Your task to perform on an android device: Open Google Maps and go to "Timeline" Image 0: 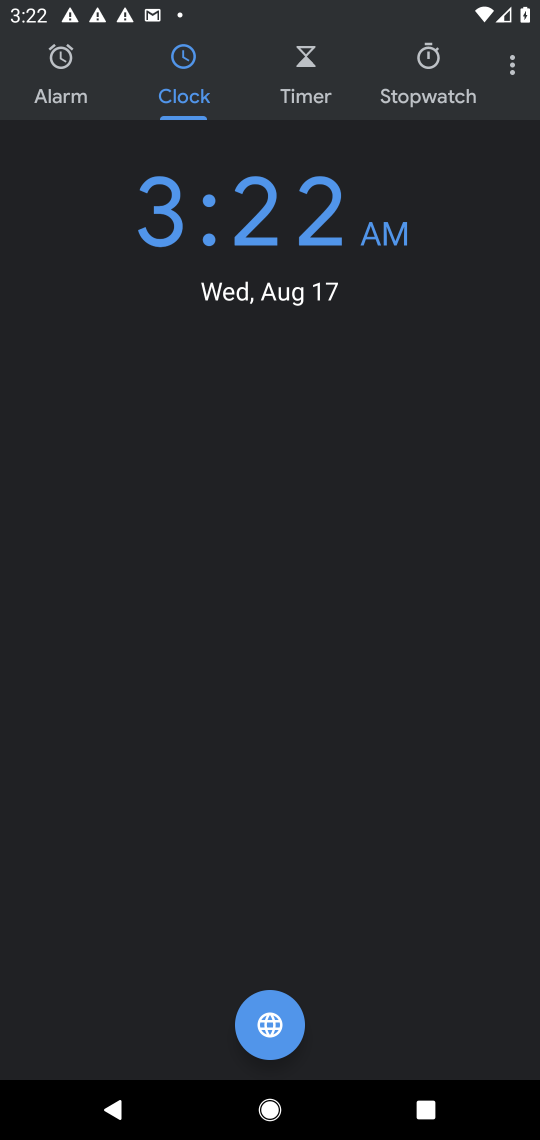
Step 0: press home button
Your task to perform on an android device: Open Google Maps and go to "Timeline" Image 1: 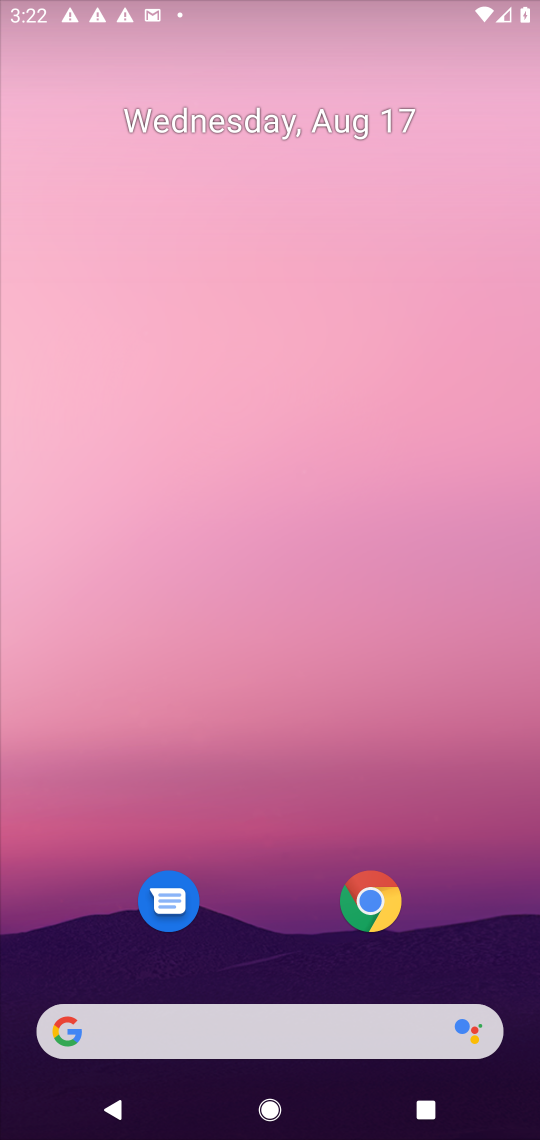
Step 1: drag from (282, 1040) to (354, 388)
Your task to perform on an android device: Open Google Maps and go to "Timeline" Image 2: 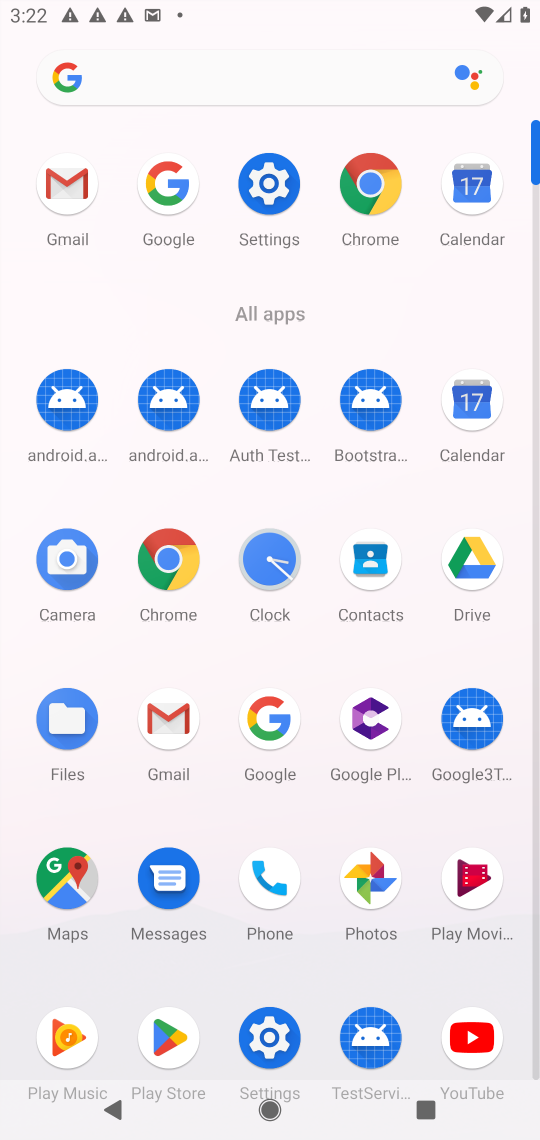
Step 2: click (59, 904)
Your task to perform on an android device: Open Google Maps and go to "Timeline" Image 3: 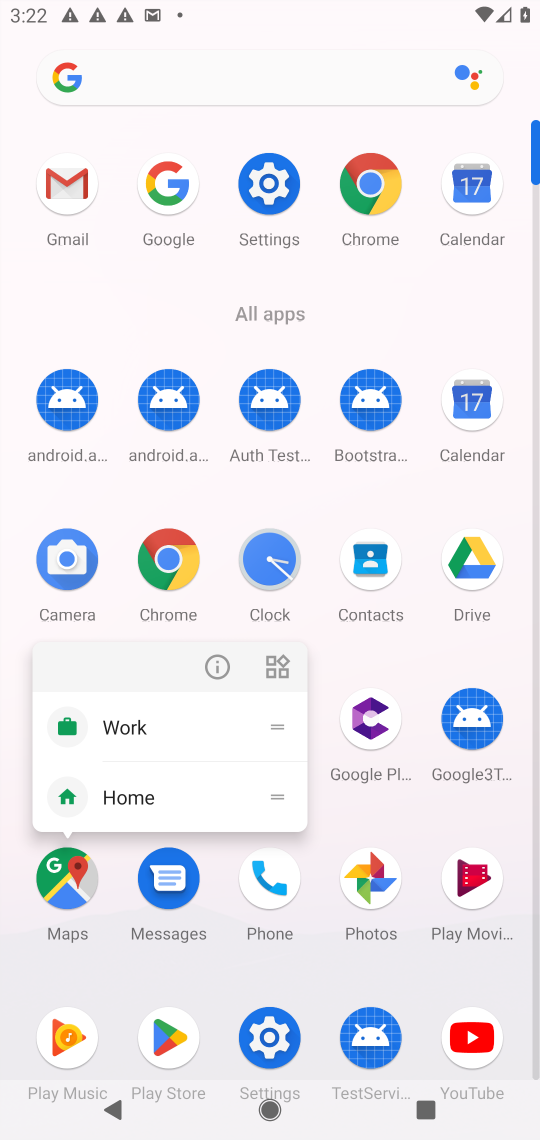
Step 3: click (60, 870)
Your task to perform on an android device: Open Google Maps and go to "Timeline" Image 4: 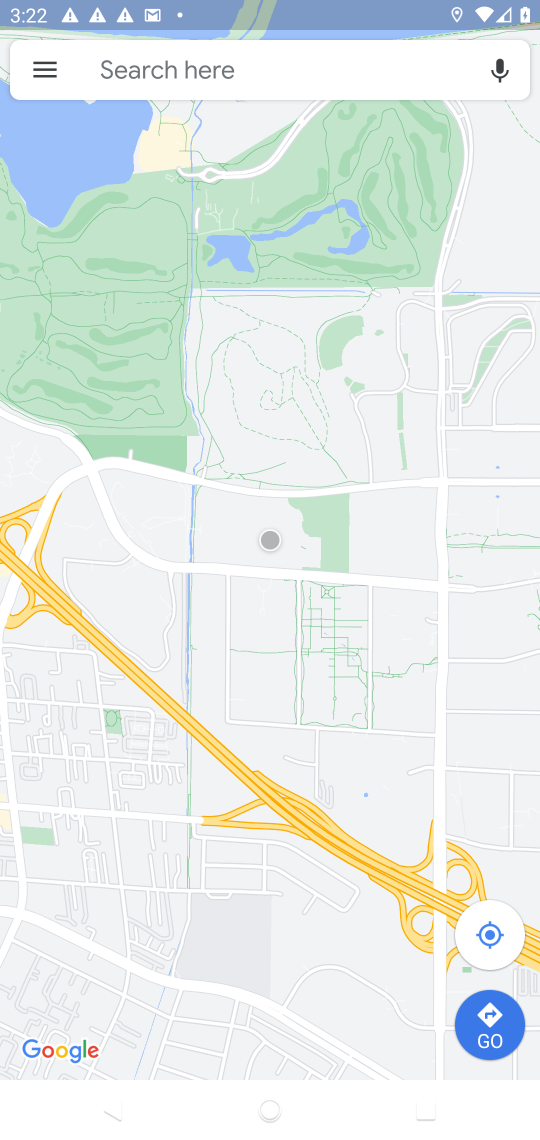
Step 4: click (43, 66)
Your task to perform on an android device: Open Google Maps and go to "Timeline" Image 5: 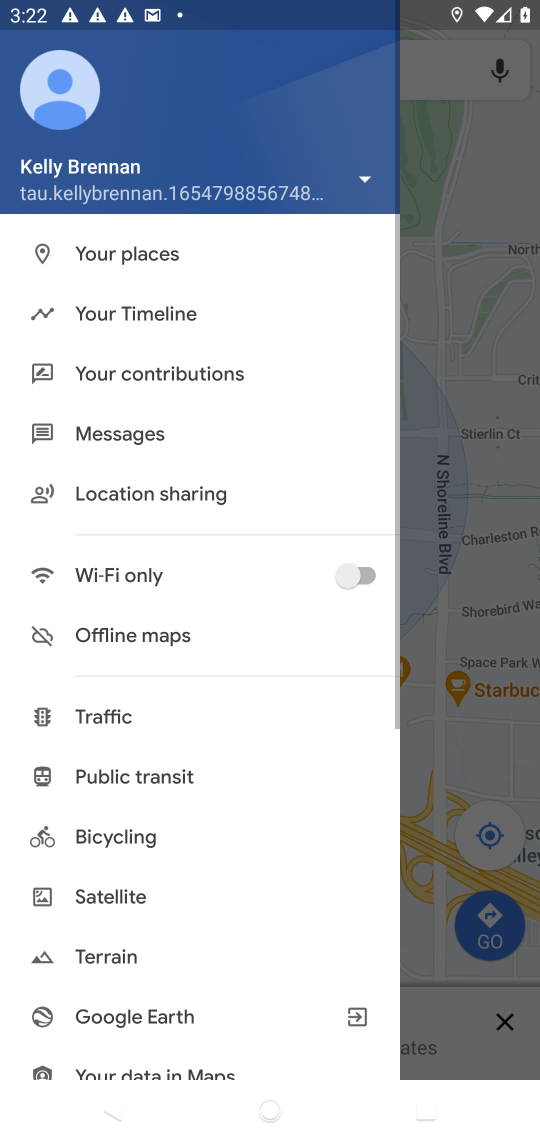
Step 5: click (125, 310)
Your task to perform on an android device: Open Google Maps and go to "Timeline" Image 6: 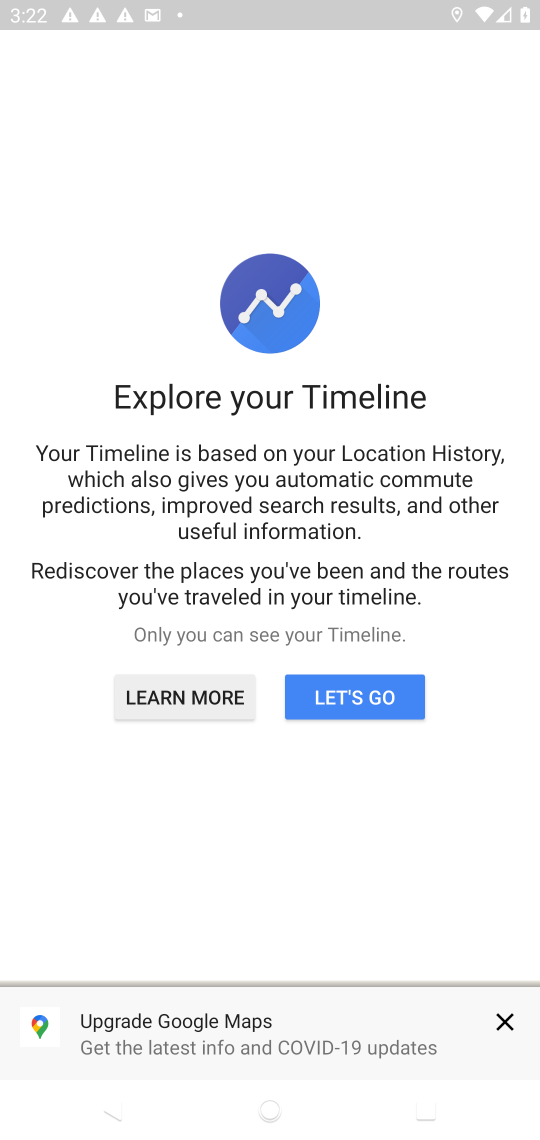
Step 6: click (341, 698)
Your task to perform on an android device: Open Google Maps and go to "Timeline" Image 7: 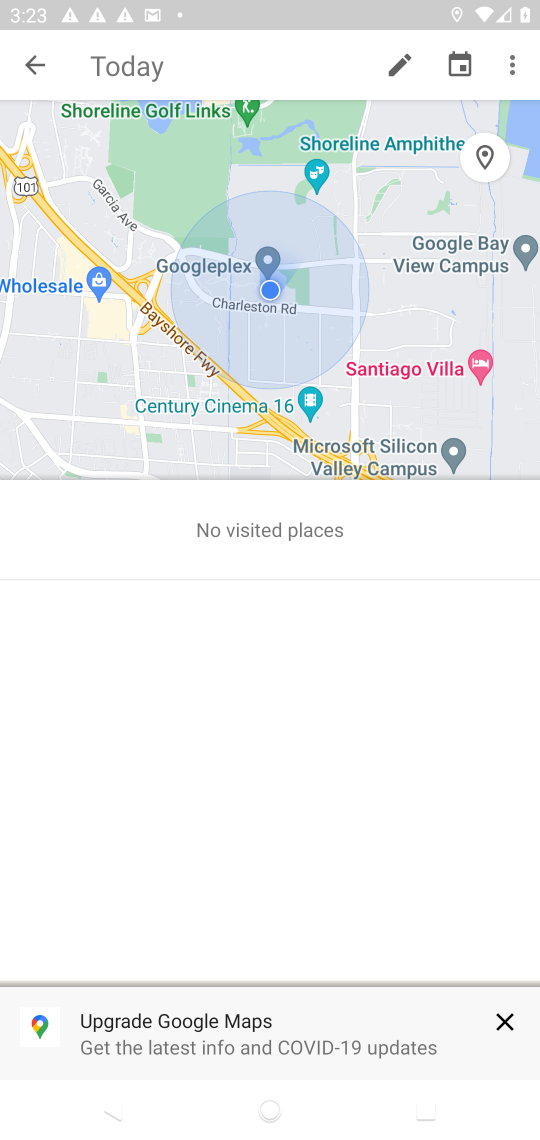
Step 7: task complete